Your task to perform on an android device: set default search engine in the chrome app Image 0: 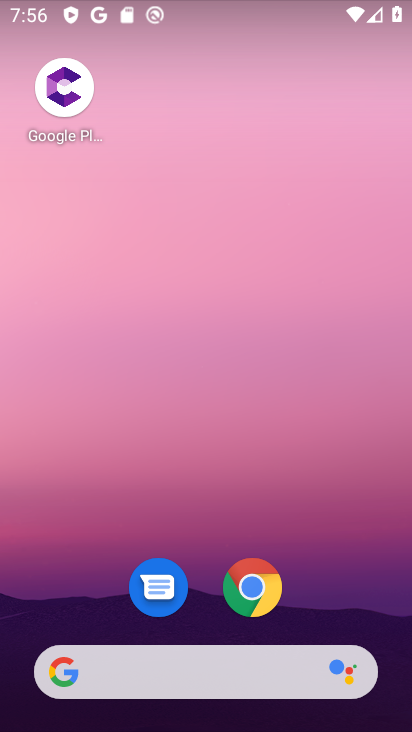
Step 0: click (259, 589)
Your task to perform on an android device: set default search engine in the chrome app Image 1: 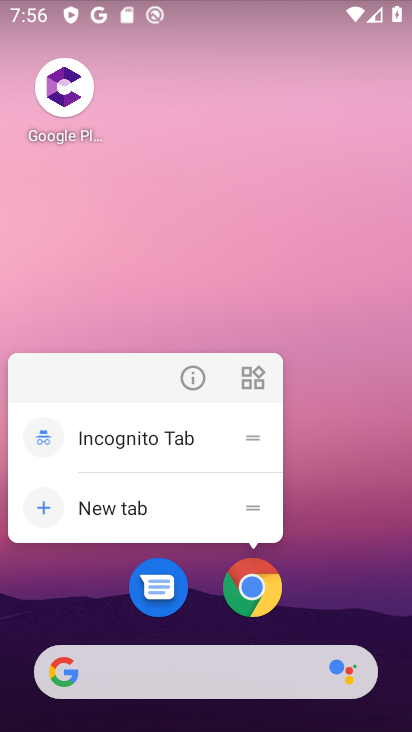
Step 1: click (261, 573)
Your task to perform on an android device: set default search engine in the chrome app Image 2: 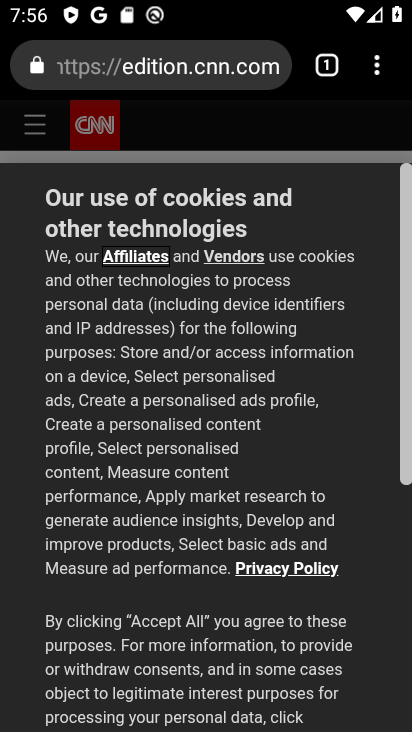
Step 2: drag from (379, 53) to (148, 635)
Your task to perform on an android device: set default search engine in the chrome app Image 3: 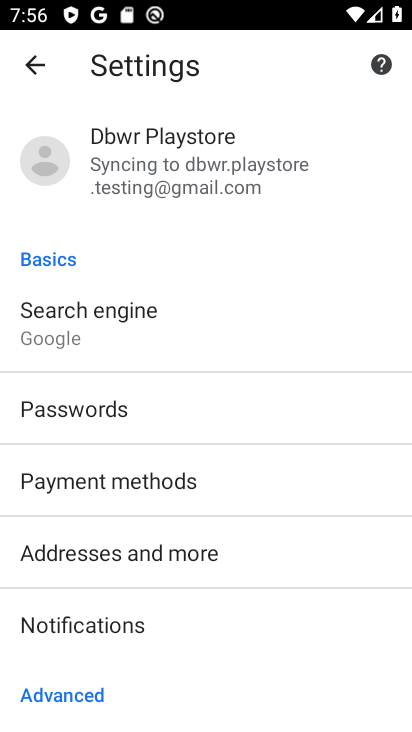
Step 3: click (69, 322)
Your task to perform on an android device: set default search engine in the chrome app Image 4: 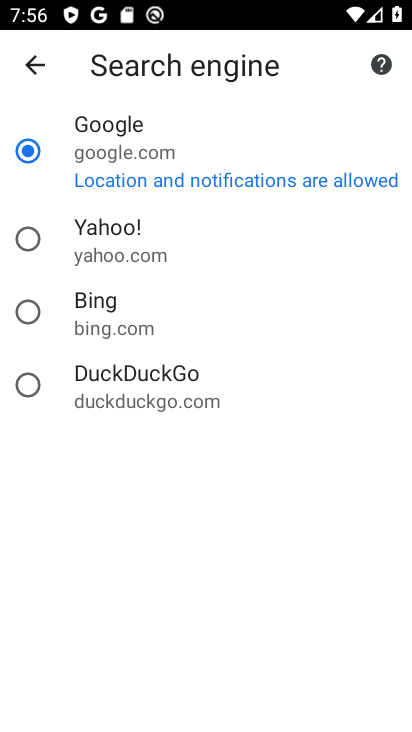
Step 4: click (121, 238)
Your task to perform on an android device: set default search engine in the chrome app Image 5: 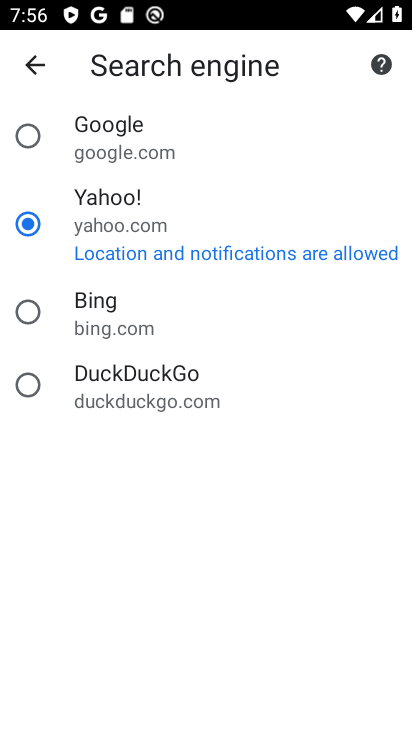
Step 5: task complete